Your task to perform on an android device: Open the stopwatch Image 0: 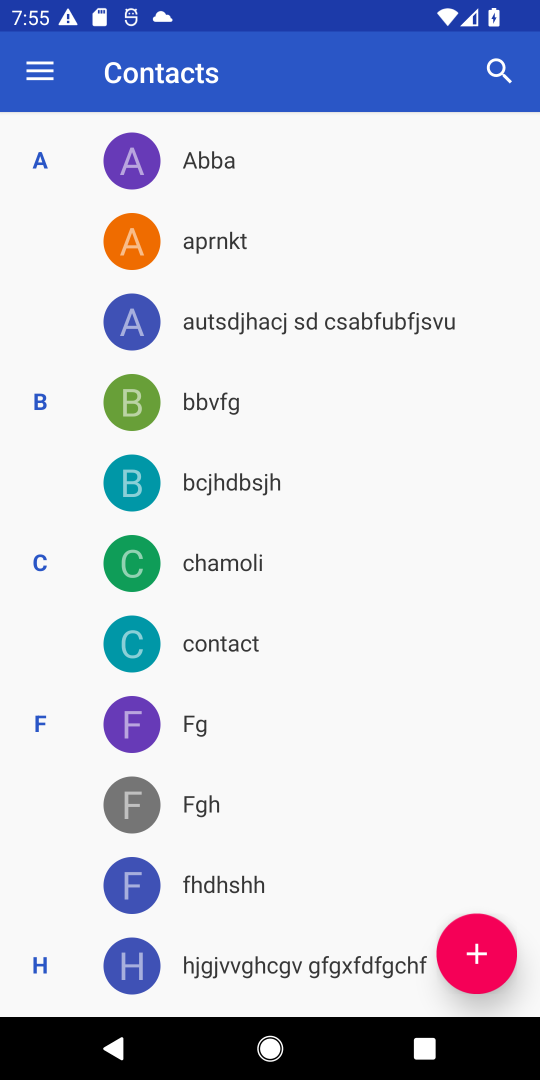
Step 0: press home button
Your task to perform on an android device: Open the stopwatch Image 1: 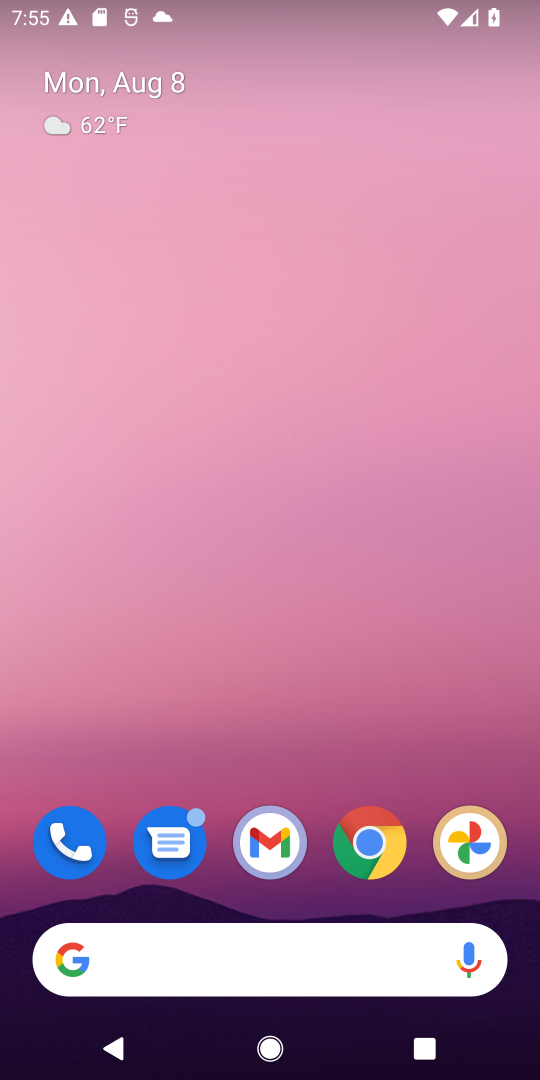
Step 1: drag from (308, 654) to (315, 0)
Your task to perform on an android device: Open the stopwatch Image 2: 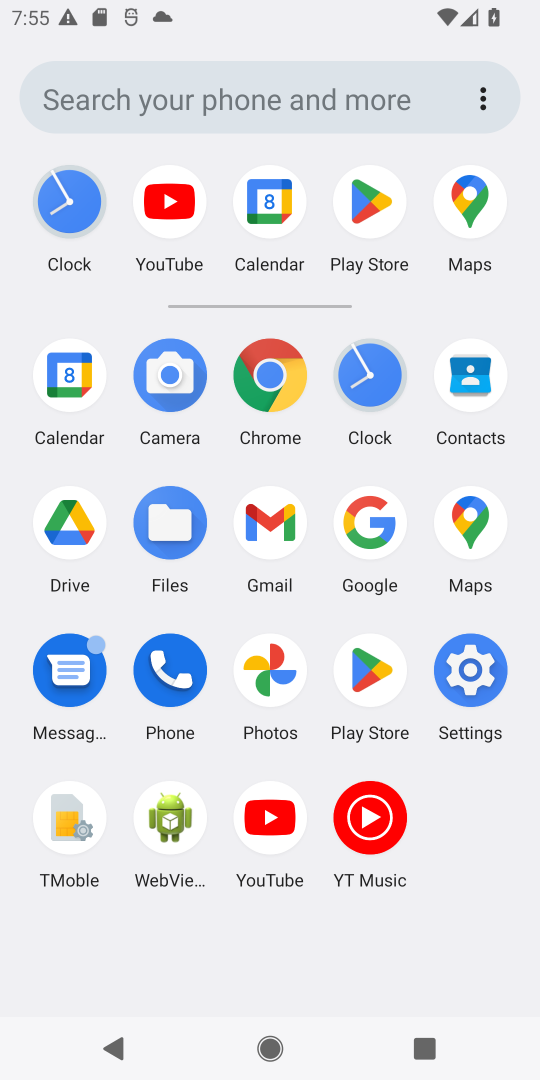
Step 2: click (369, 363)
Your task to perform on an android device: Open the stopwatch Image 3: 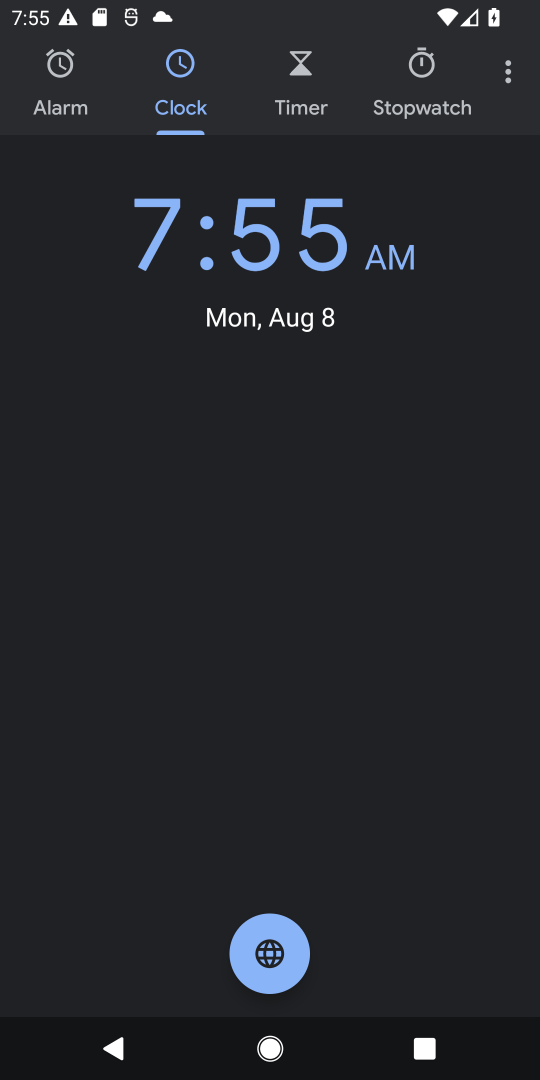
Step 3: click (413, 81)
Your task to perform on an android device: Open the stopwatch Image 4: 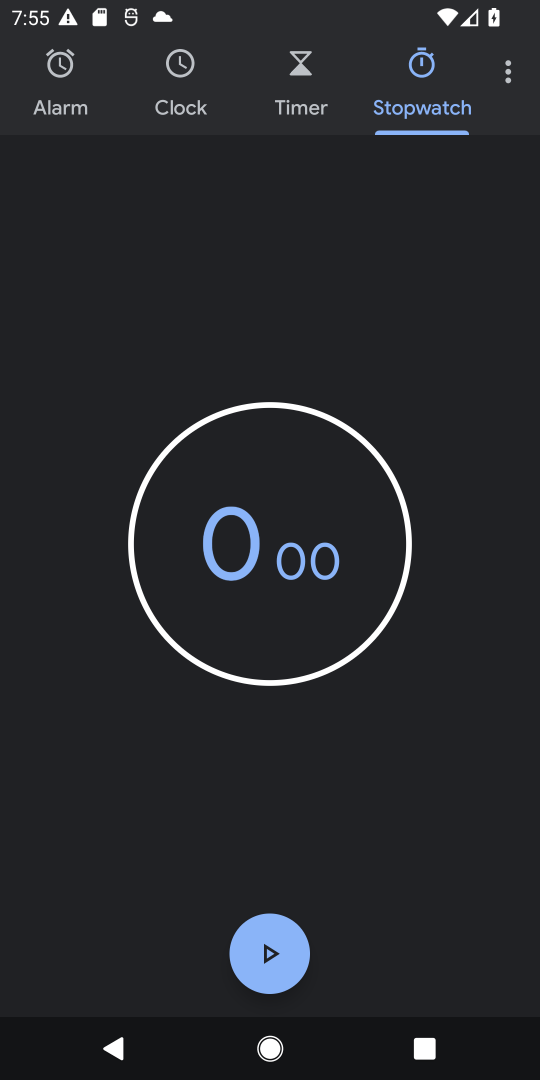
Step 4: task complete